Your task to perform on an android device: Go to wifi settings Image 0: 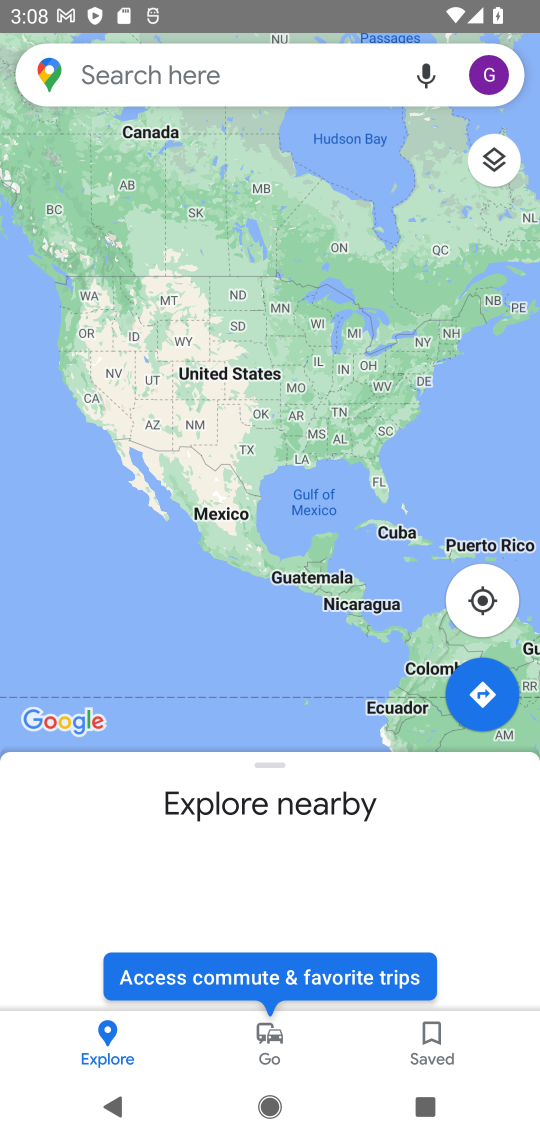
Step 0: press home button
Your task to perform on an android device: Go to wifi settings Image 1: 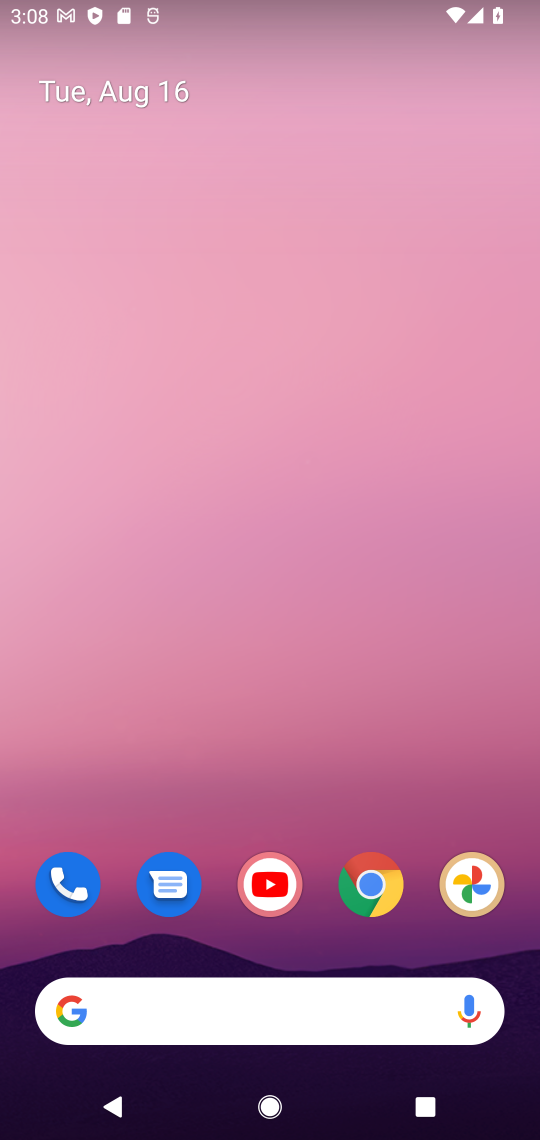
Step 1: drag from (251, 791) to (251, 151)
Your task to perform on an android device: Go to wifi settings Image 2: 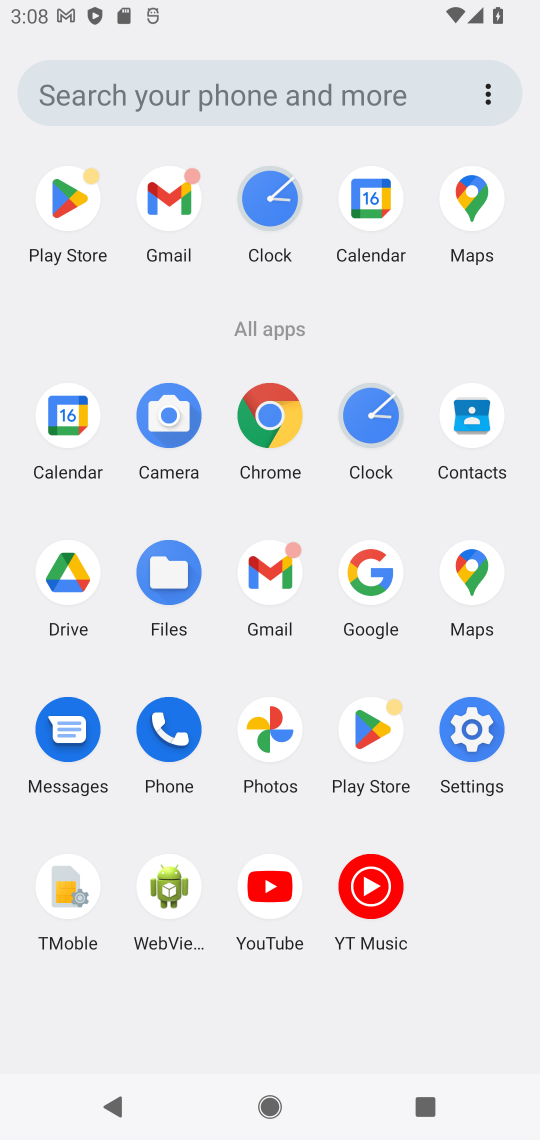
Step 2: click (502, 728)
Your task to perform on an android device: Go to wifi settings Image 3: 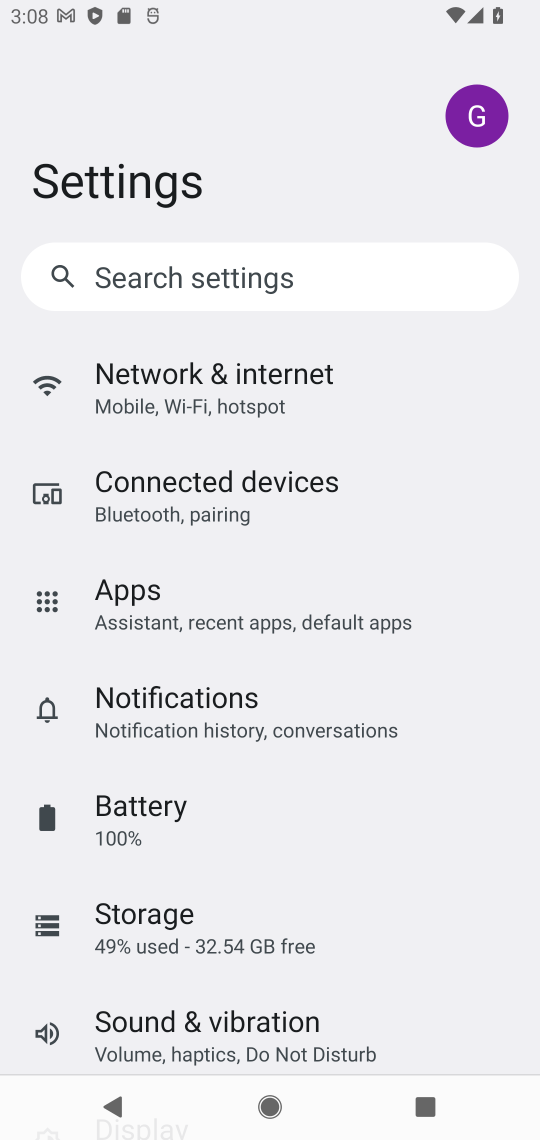
Step 3: click (193, 390)
Your task to perform on an android device: Go to wifi settings Image 4: 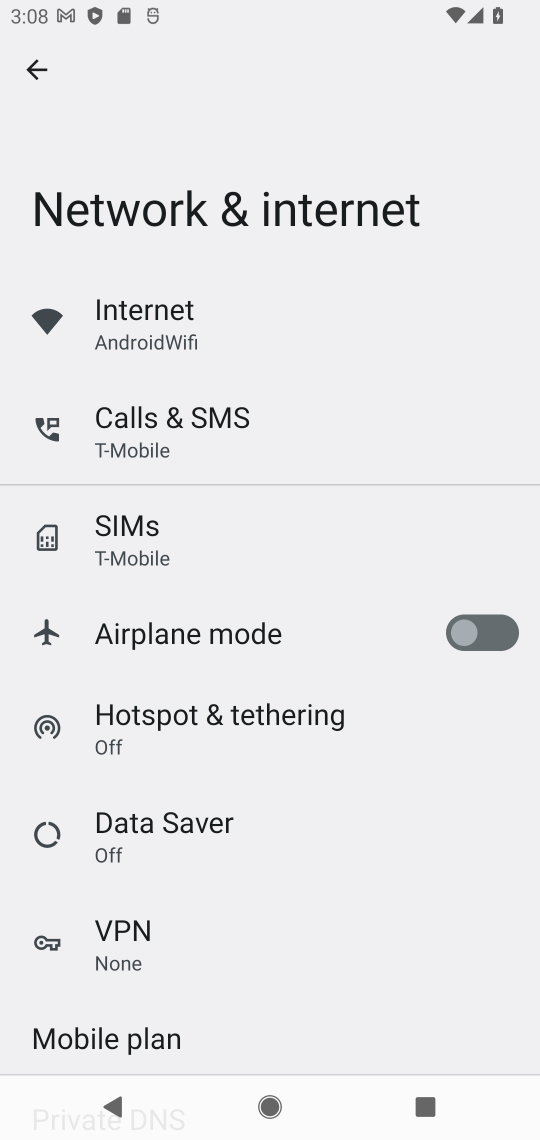
Step 4: task complete